Your task to perform on an android device: Open sound settings Image 0: 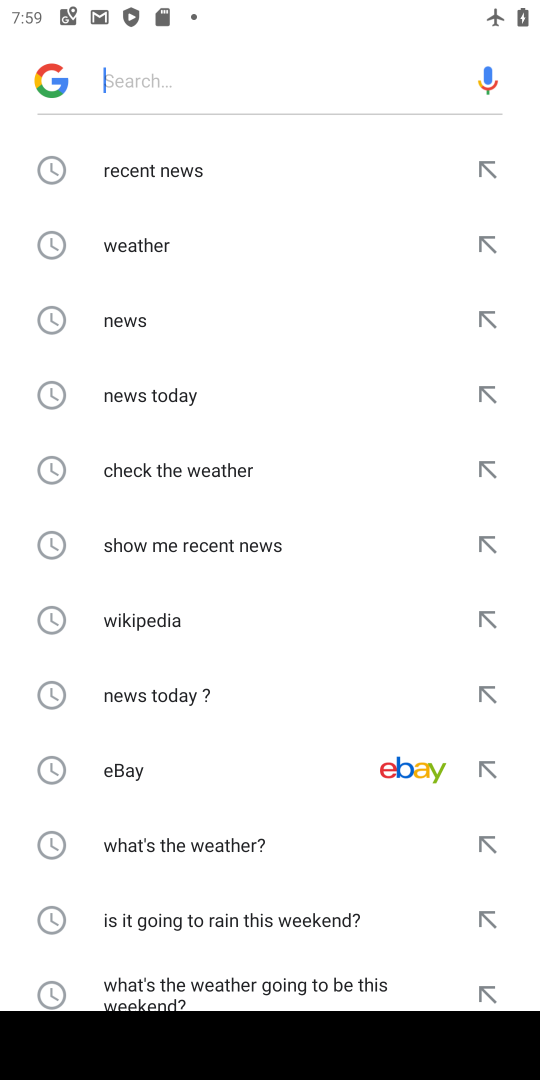
Step 0: press home button
Your task to perform on an android device: Open sound settings Image 1: 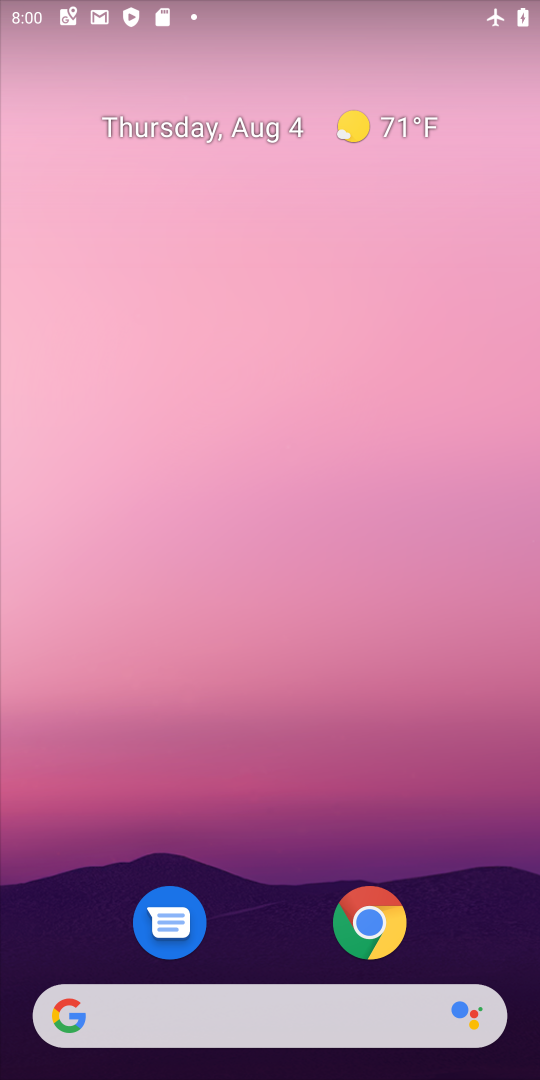
Step 1: drag from (501, 917) to (395, 303)
Your task to perform on an android device: Open sound settings Image 2: 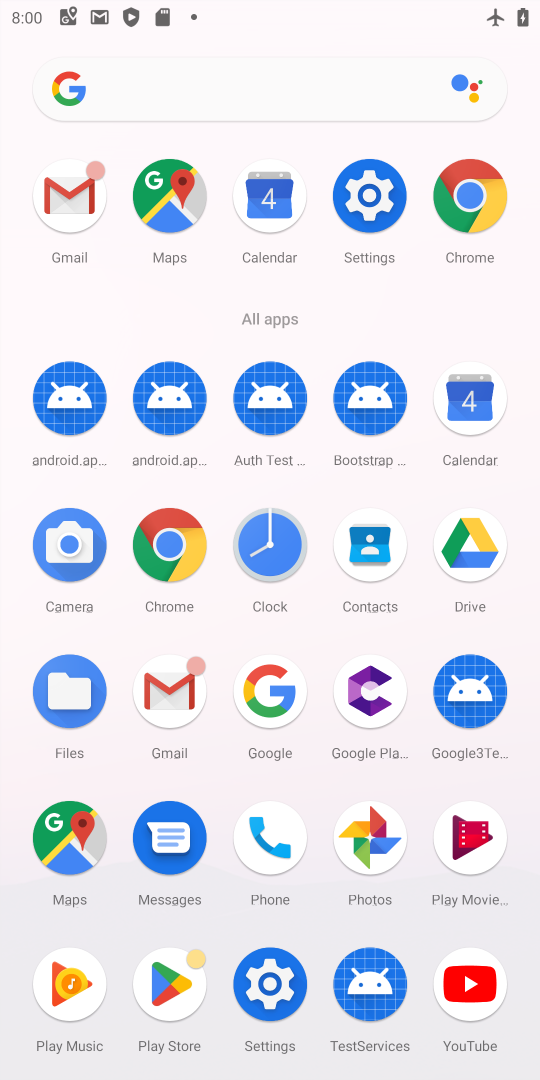
Step 2: click (358, 230)
Your task to perform on an android device: Open sound settings Image 3: 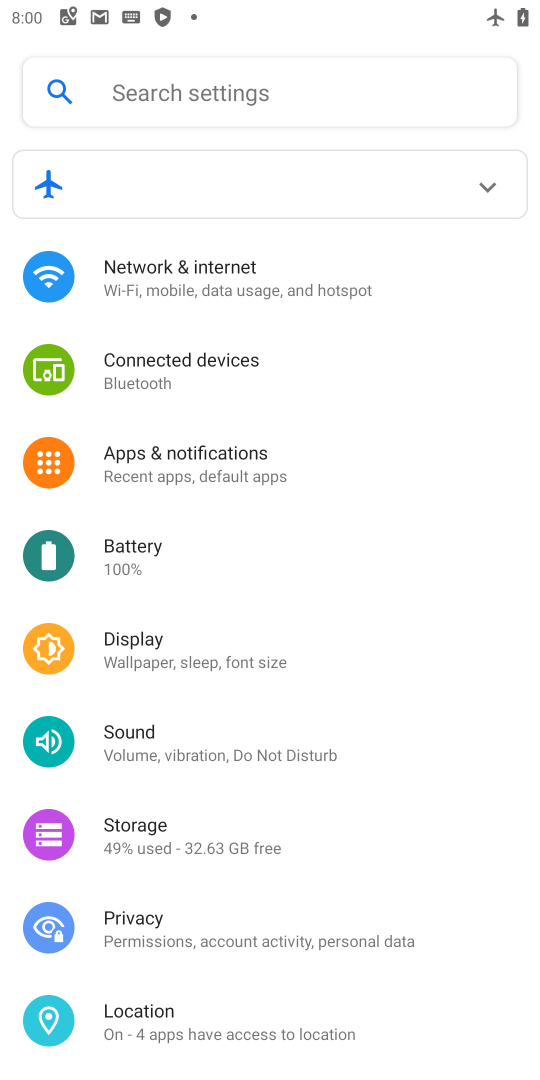
Step 3: click (247, 759)
Your task to perform on an android device: Open sound settings Image 4: 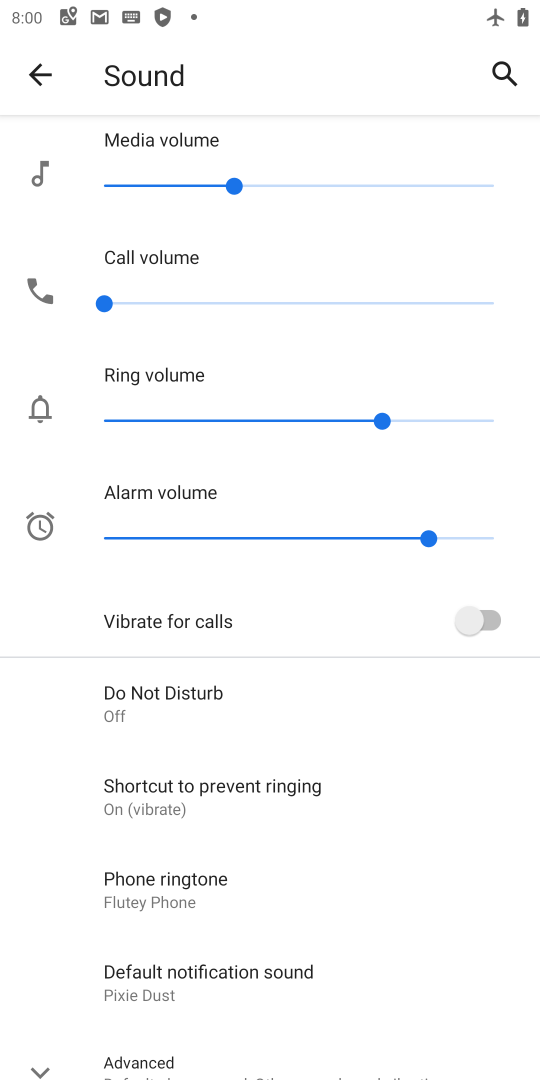
Step 4: task complete